Your task to perform on an android device: What is the capital of Canada? Image 0: 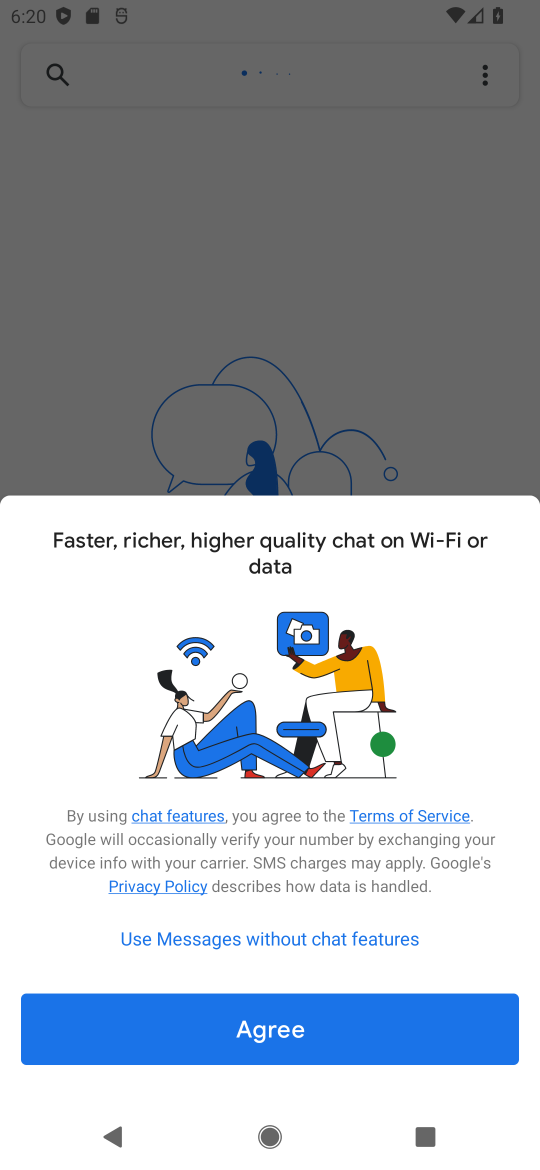
Step 0: press home button
Your task to perform on an android device: What is the capital of Canada? Image 1: 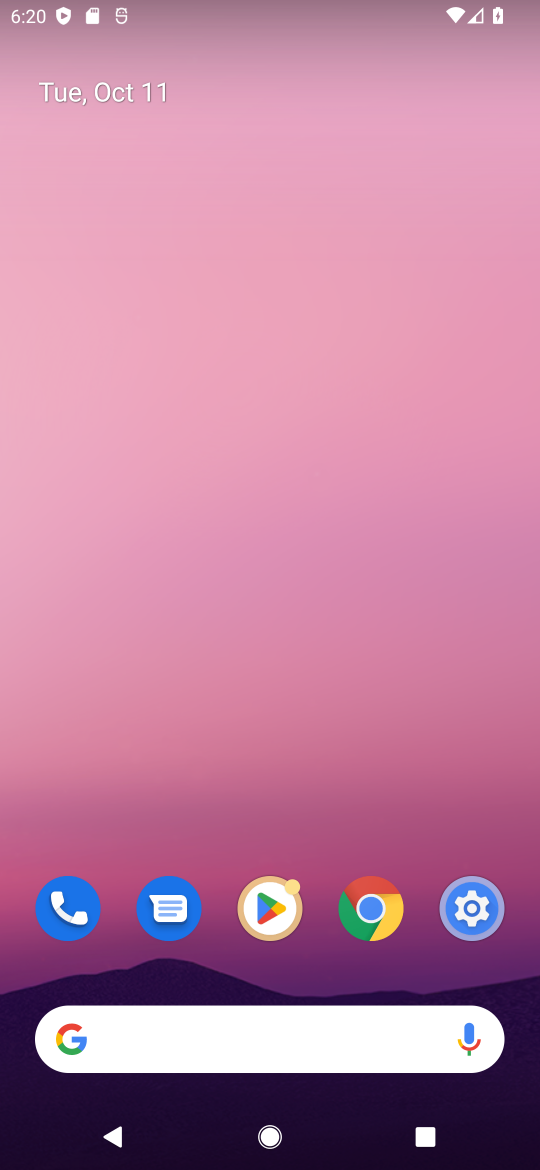
Step 1: click (241, 1040)
Your task to perform on an android device: What is the capital of Canada? Image 2: 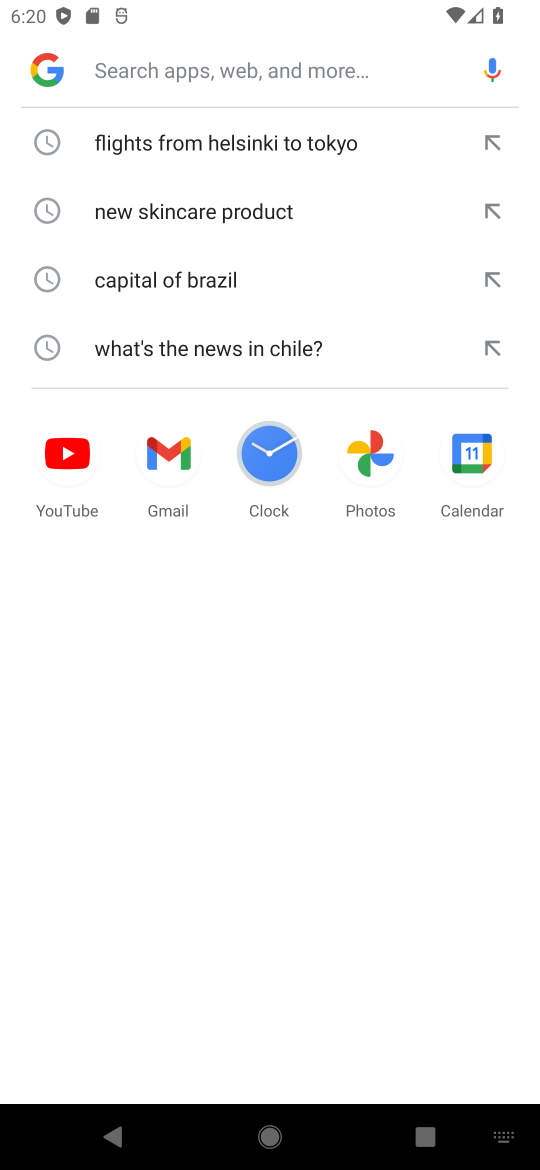
Step 2: type "capital of canada?"
Your task to perform on an android device: What is the capital of Canada? Image 3: 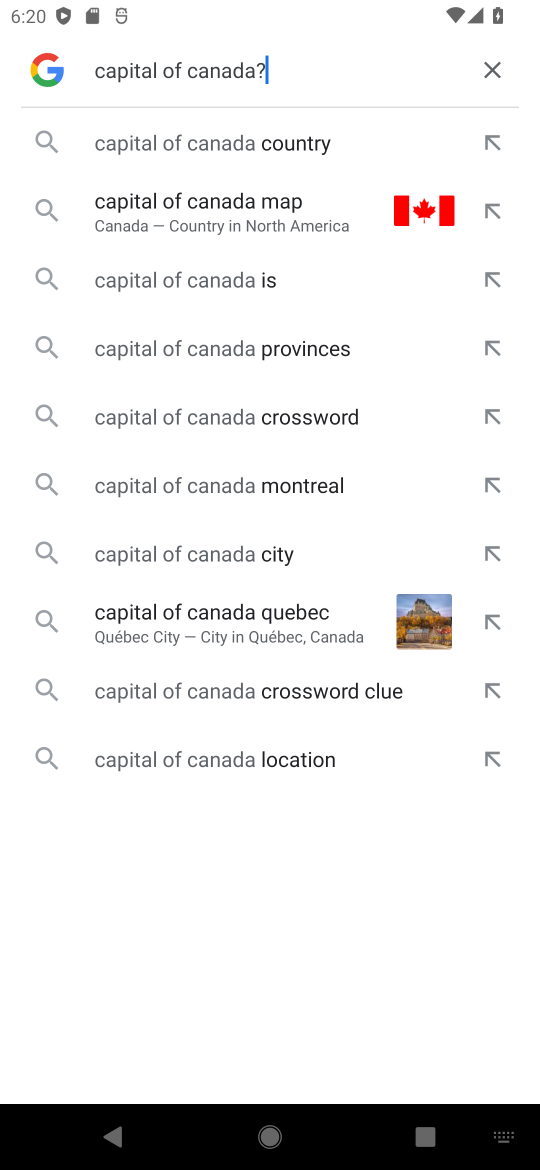
Step 3: click (234, 145)
Your task to perform on an android device: What is the capital of Canada? Image 4: 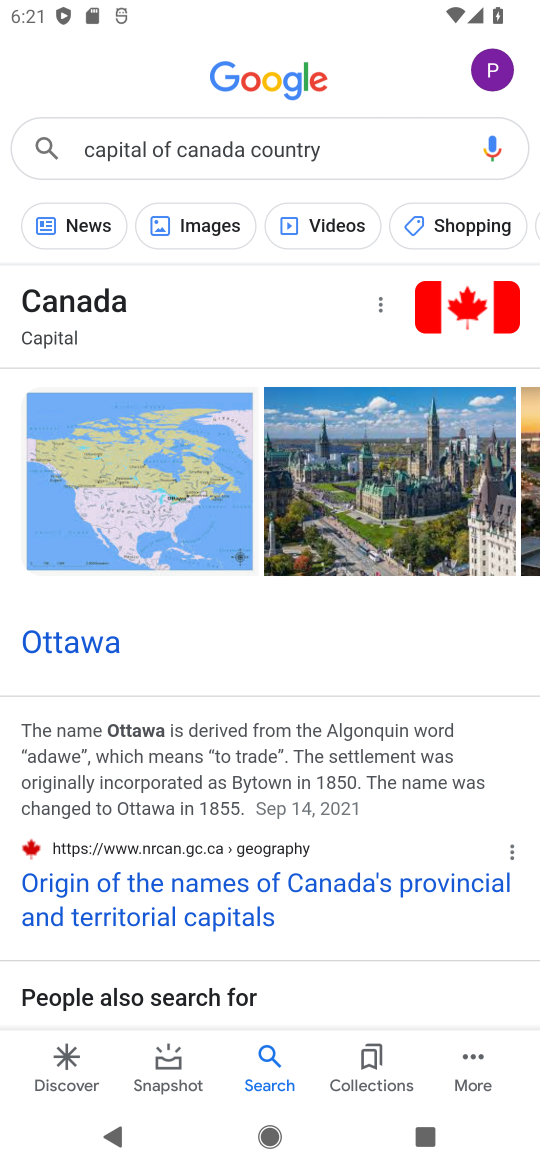
Step 4: task complete